Your task to perform on an android device: Open settings Image 0: 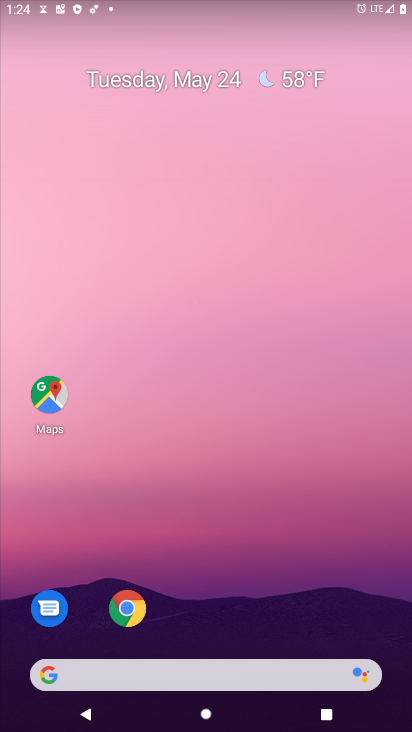
Step 0: press home button
Your task to perform on an android device: Open settings Image 1: 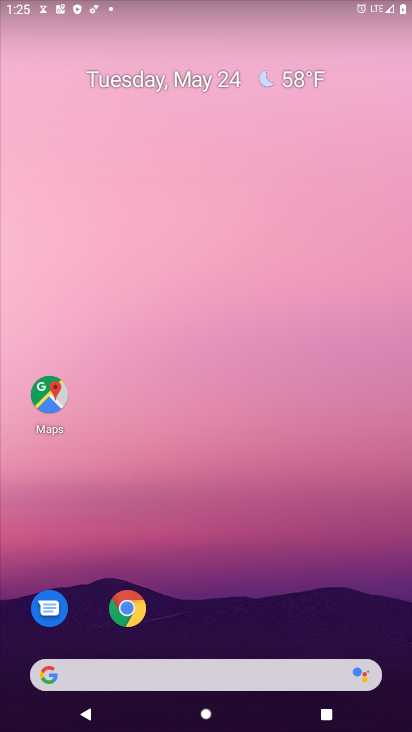
Step 1: drag from (284, 706) to (153, 281)
Your task to perform on an android device: Open settings Image 2: 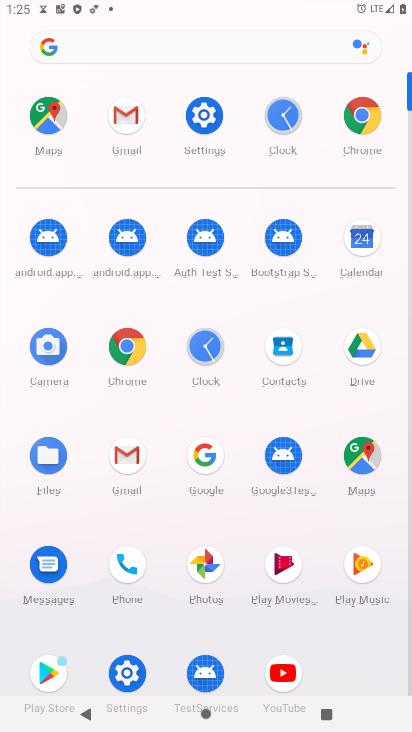
Step 2: click (206, 118)
Your task to perform on an android device: Open settings Image 3: 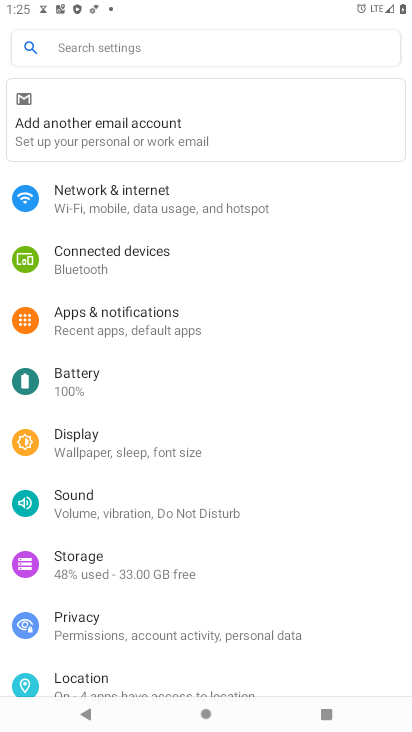
Step 3: task complete